Your task to perform on an android device: Open the calendar and show me this week's events? Image 0: 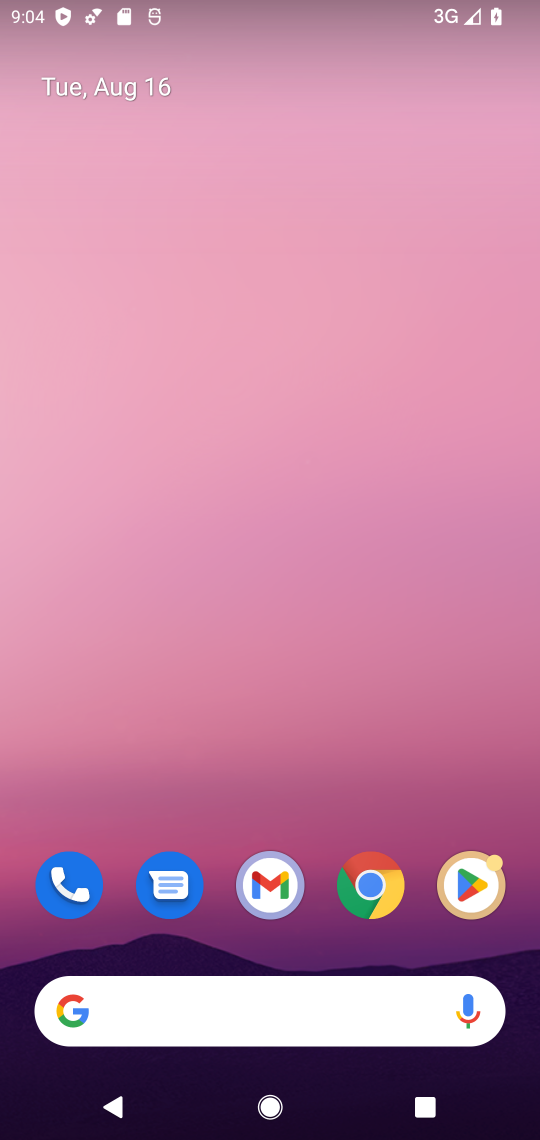
Step 0: drag from (220, 786) to (233, 140)
Your task to perform on an android device: Open the calendar and show me this week's events? Image 1: 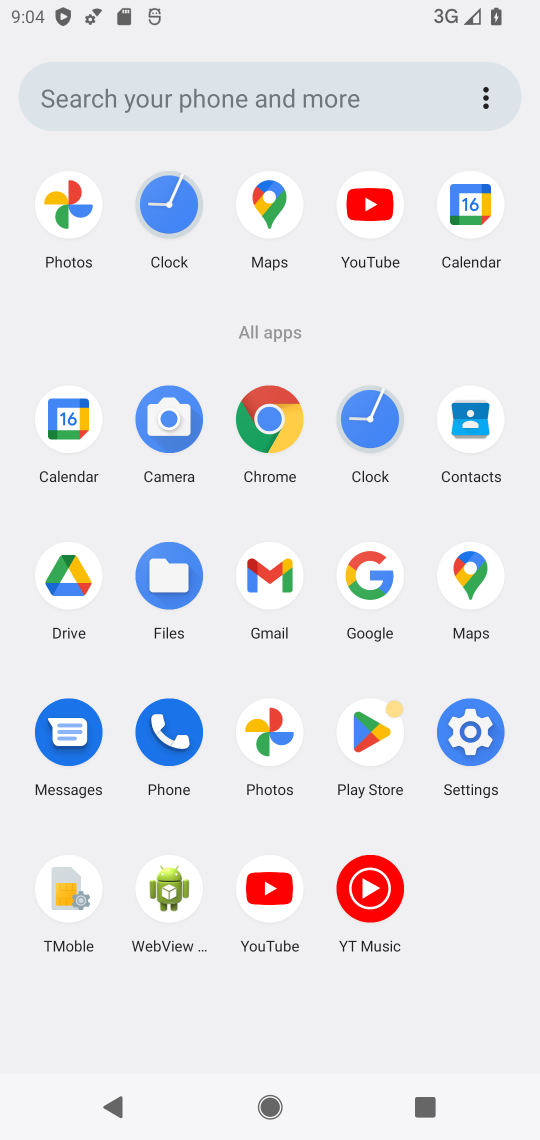
Step 1: click (73, 429)
Your task to perform on an android device: Open the calendar and show me this week's events? Image 2: 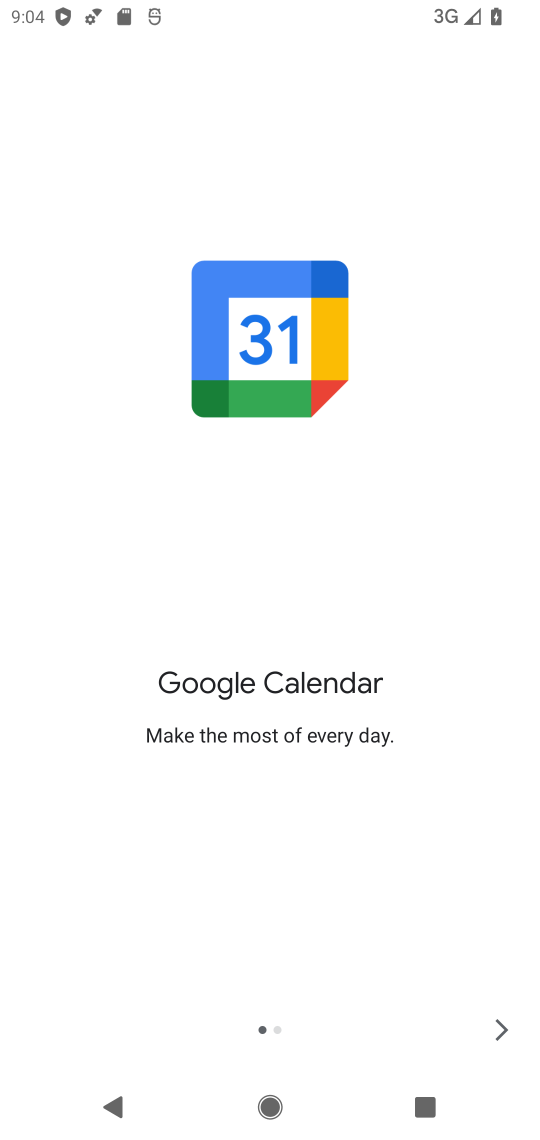
Step 2: click (506, 1036)
Your task to perform on an android device: Open the calendar and show me this week's events? Image 3: 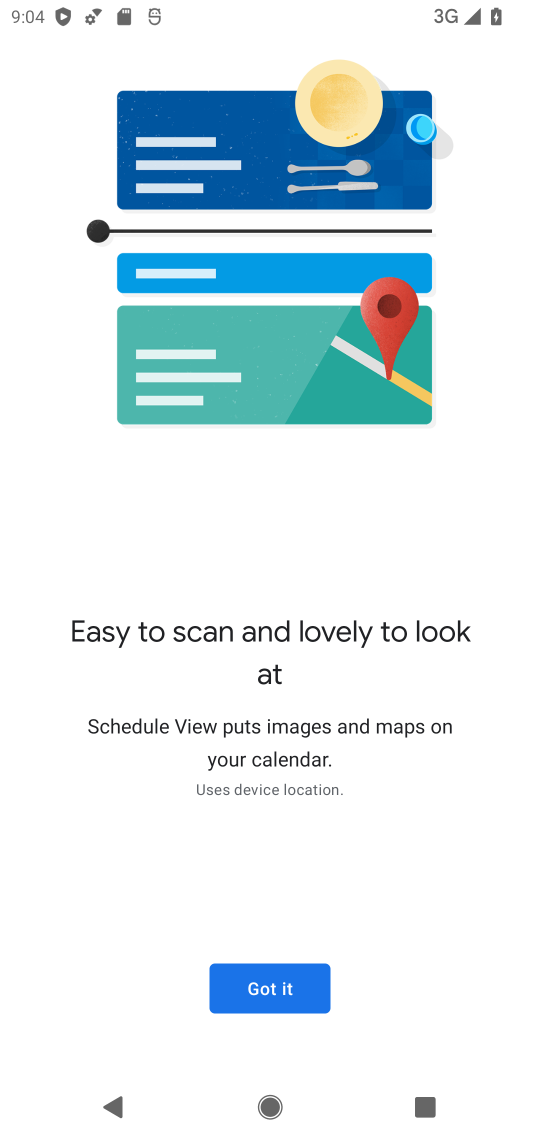
Step 3: click (279, 992)
Your task to perform on an android device: Open the calendar and show me this week's events? Image 4: 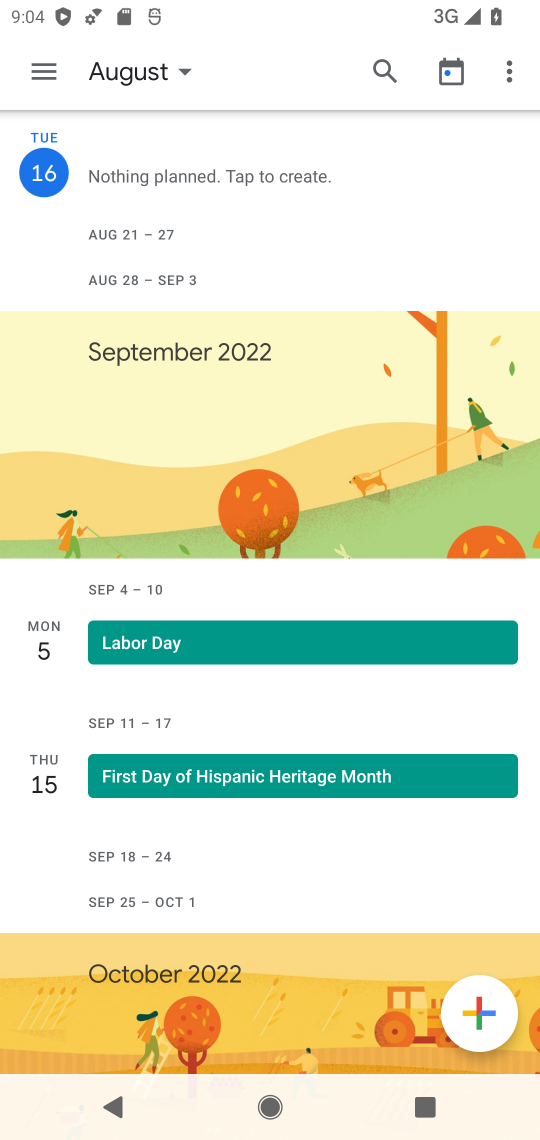
Step 4: click (49, 70)
Your task to perform on an android device: Open the calendar and show me this week's events? Image 5: 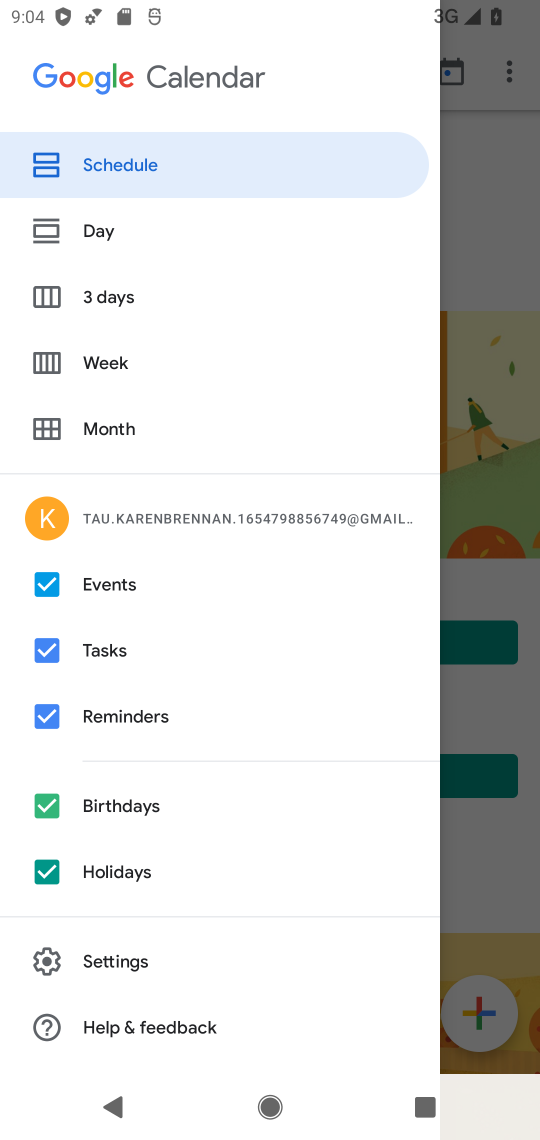
Step 5: click (104, 361)
Your task to perform on an android device: Open the calendar and show me this week's events? Image 6: 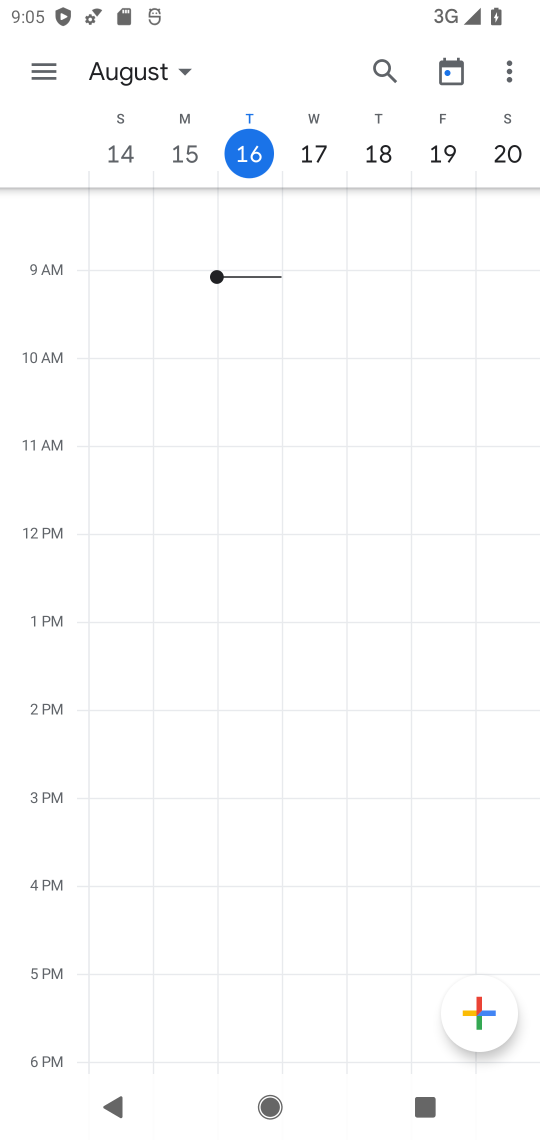
Step 6: task complete